Your task to perform on an android device: Turn off the flashlight Image 0: 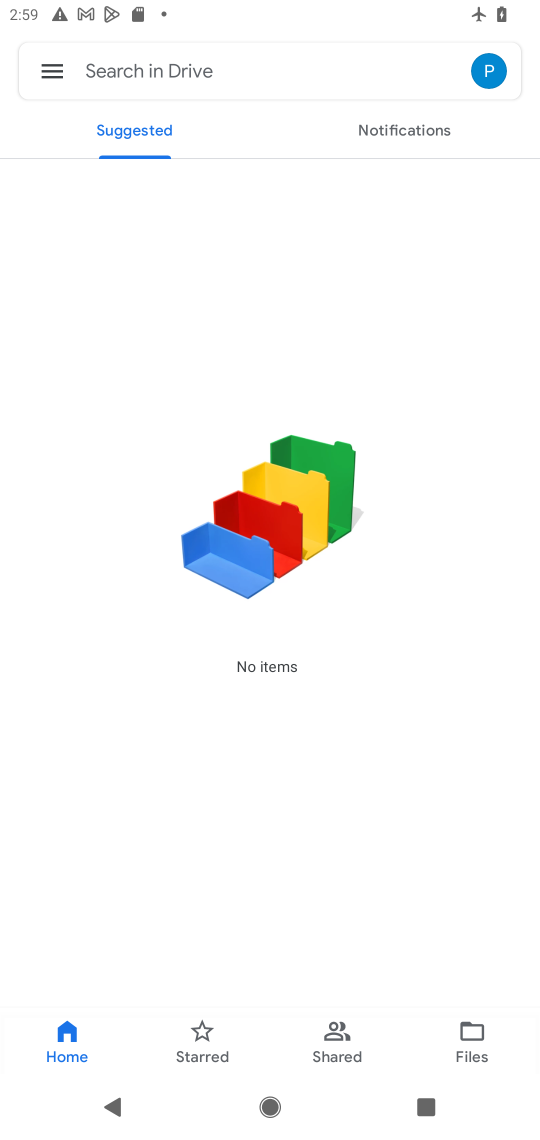
Step 0: press home button
Your task to perform on an android device: Turn off the flashlight Image 1: 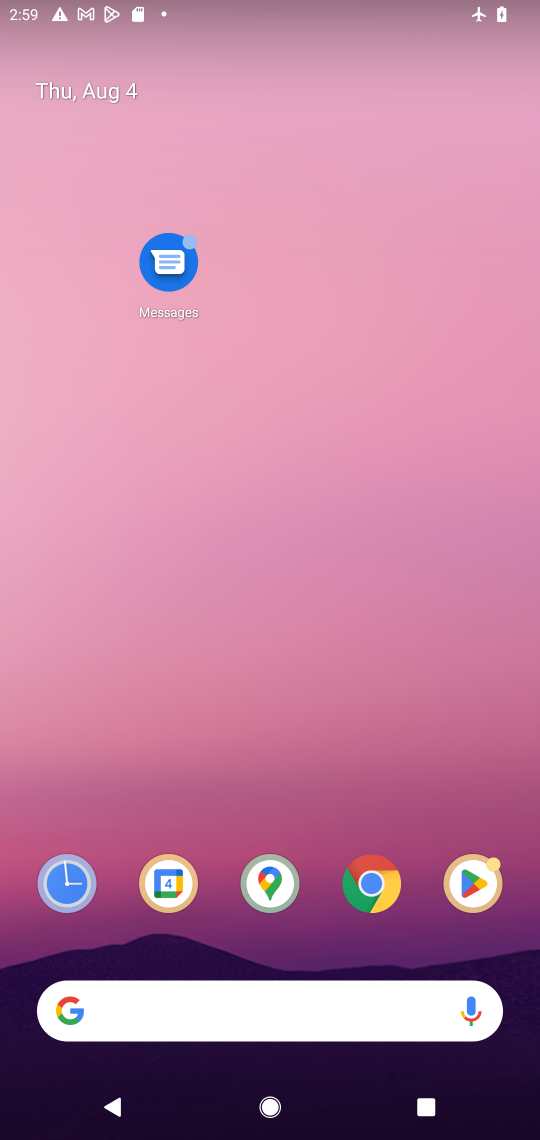
Step 1: drag from (226, 880) to (214, 9)
Your task to perform on an android device: Turn off the flashlight Image 2: 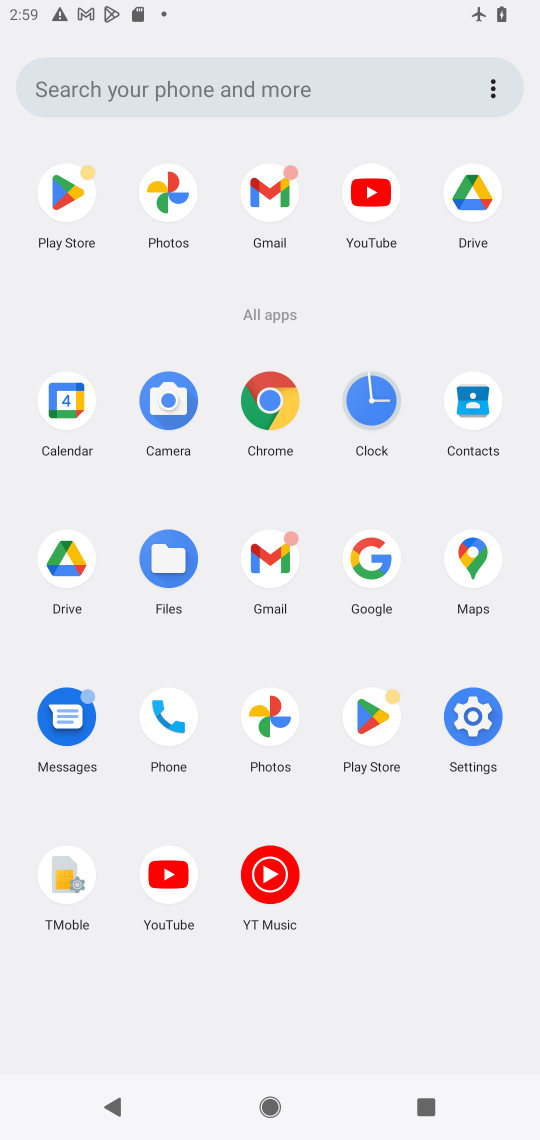
Step 2: click (473, 731)
Your task to perform on an android device: Turn off the flashlight Image 3: 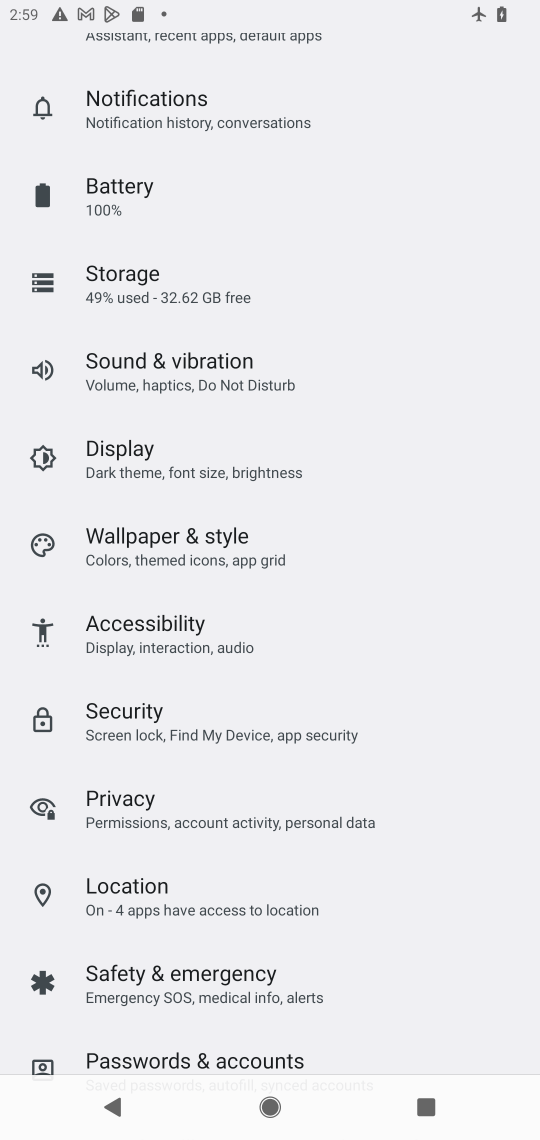
Step 3: task complete